Your task to perform on an android device: manage bookmarks in the chrome app Image 0: 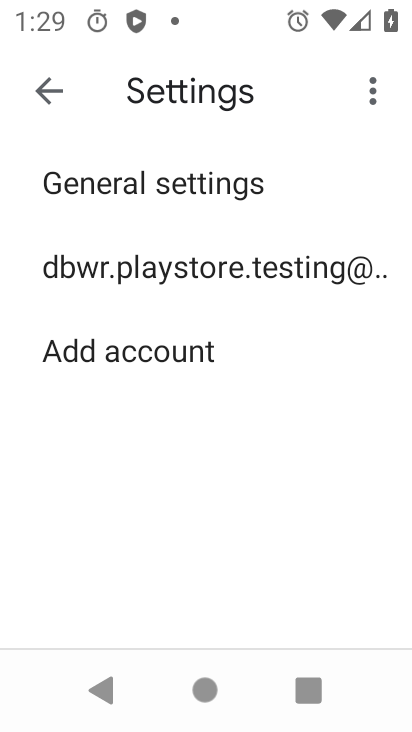
Step 0: press home button
Your task to perform on an android device: manage bookmarks in the chrome app Image 1: 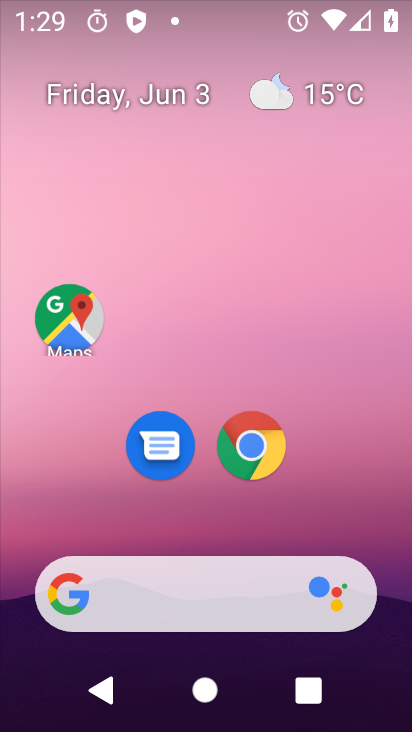
Step 1: click (238, 453)
Your task to perform on an android device: manage bookmarks in the chrome app Image 2: 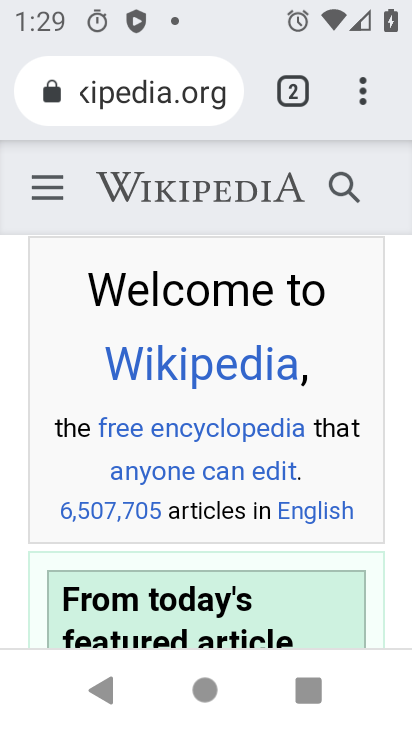
Step 2: click (374, 85)
Your task to perform on an android device: manage bookmarks in the chrome app Image 3: 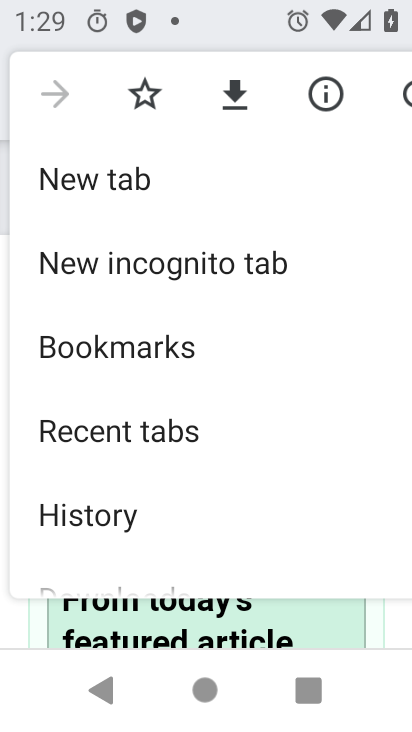
Step 3: click (172, 365)
Your task to perform on an android device: manage bookmarks in the chrome app Image 4: 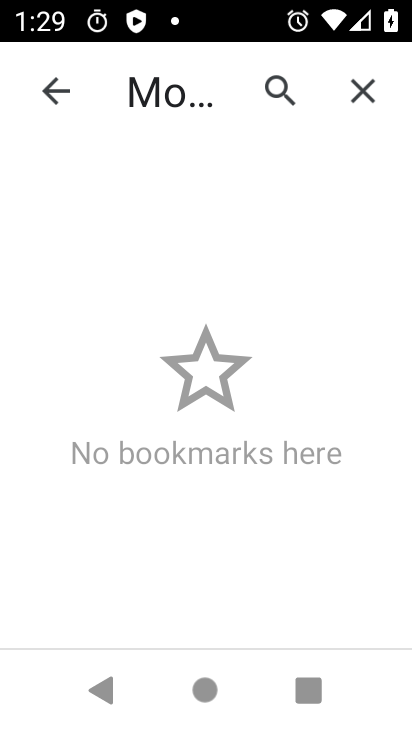
Step 4: click (172, 365)
Your task to perform on an android device: manage bookmarks in the chrome app Image 5: 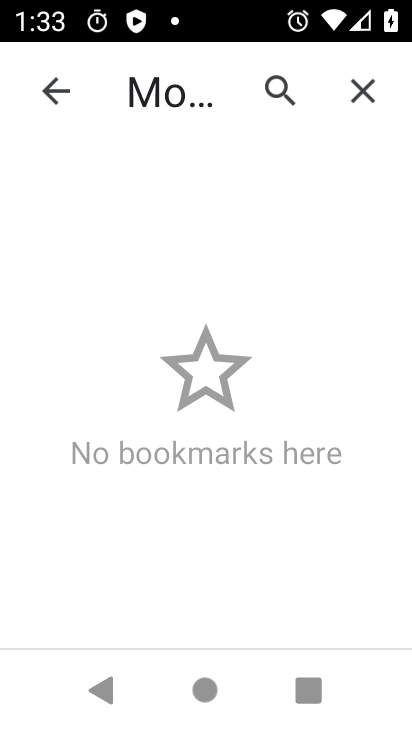
Step 5: task complete